Your task to perform on an android device: What's the weather? Image 0: 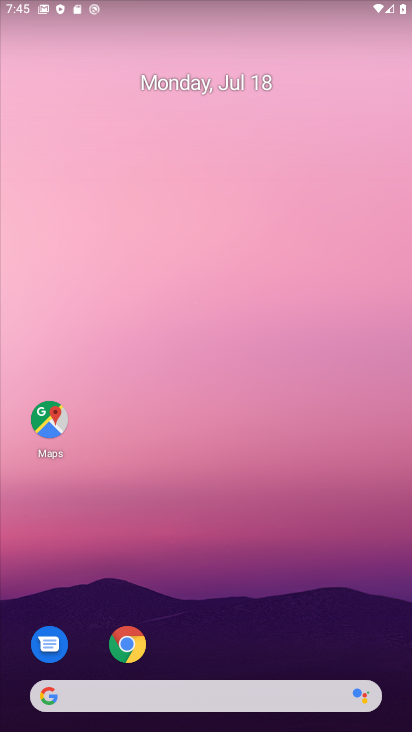
Step 0: click (203, 681)
Your task to perform on an android device: What's the weather? Image 1: 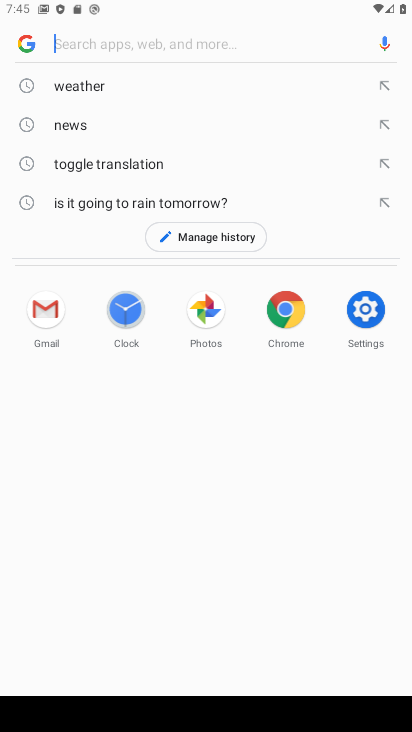
Step 1: click (78, 91)
Your task to perform on an android device: What's the weather? Image 2: 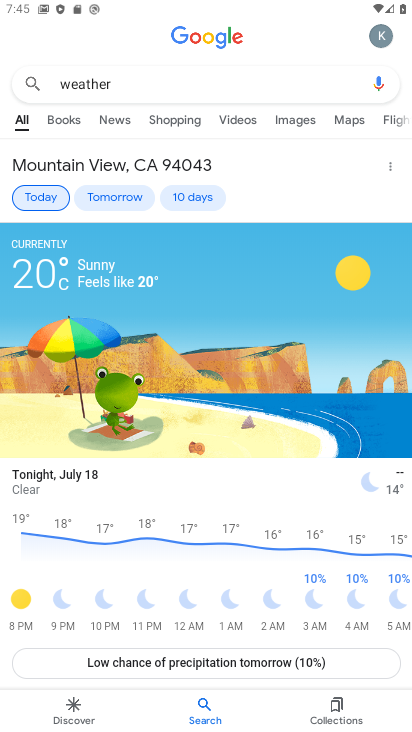
Step 2: task complete